Your task to perform on an android device: read, delete, or share a saved page in the chrome app Image 0: 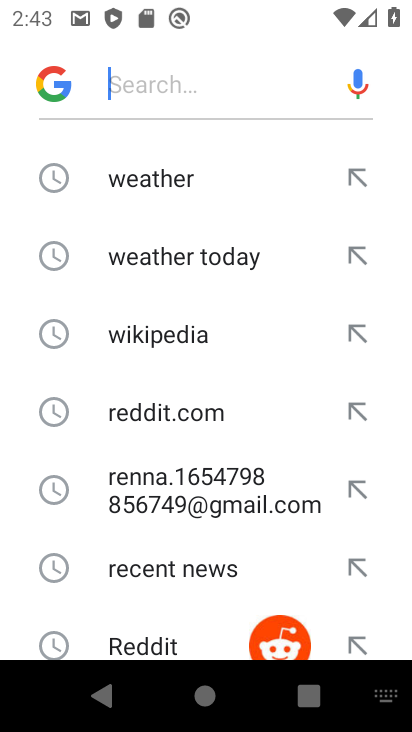
Step 0: press back button
Your task to perform on an android device: read, delete, or share a saved page in the chrome app Image 1: 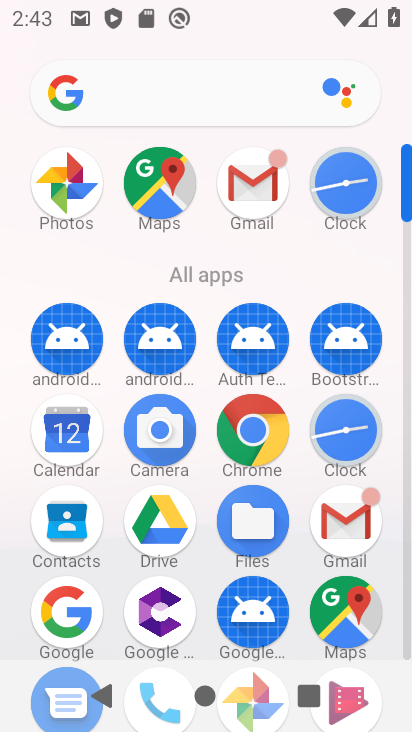
Step 1: click (266, 442)
Your task to perform on an android device: read, delete, or share a saved page in the chrome app Image 2: 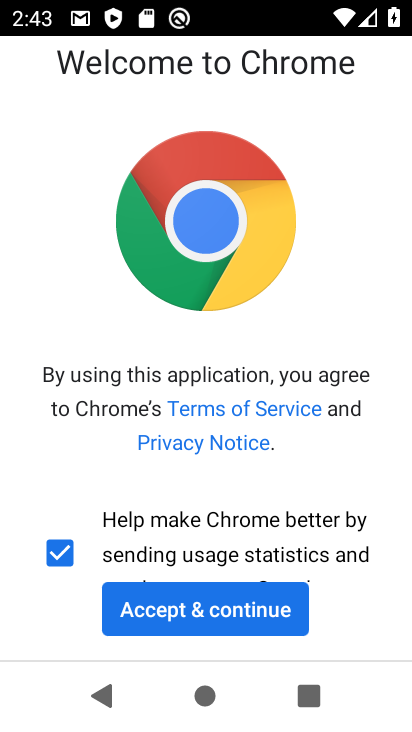
Step 2: click (207, 620)
Your task to perform on an android device: read, delete, or share a saved page in the chrome app Image 3: 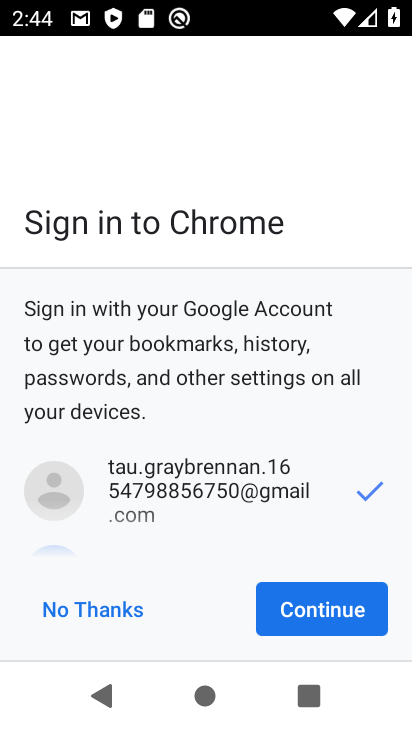
Step 3: click (318, 621)
Your task to perform on an android device: read, delete, or share a saved page in the chrome app Image 4: 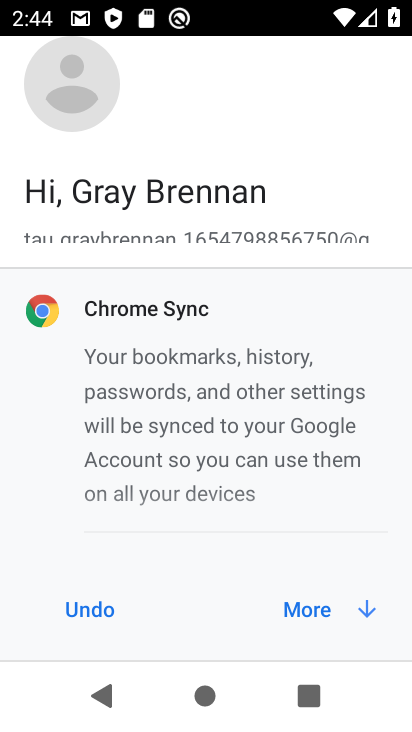
Step 4: click (326, 602)
Your task to perform on an android device: read, delete, or share a saved page in the chrome app Image 5: 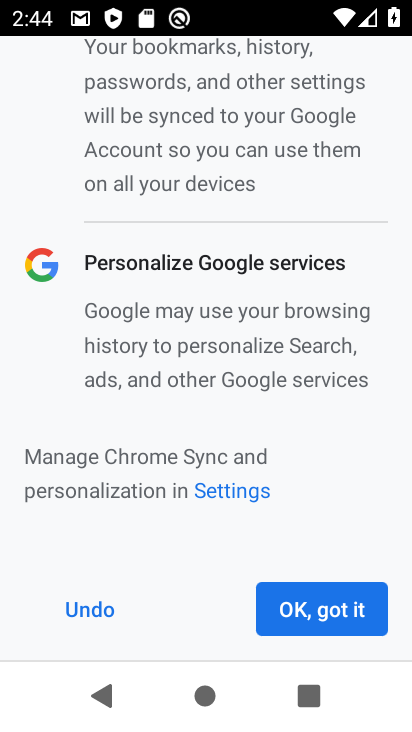
Step 5: click (326, 602)
Your task to perform on an android device: read, delete, or share a saved page in the chrome app Image 6: 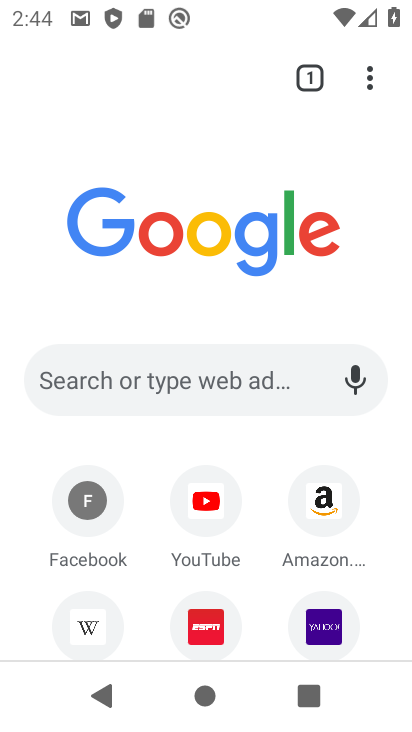
Step 6: click (372, 82)
Your task to perform on an android device: read, delete, or share a saved page in the chrome app Image 7: 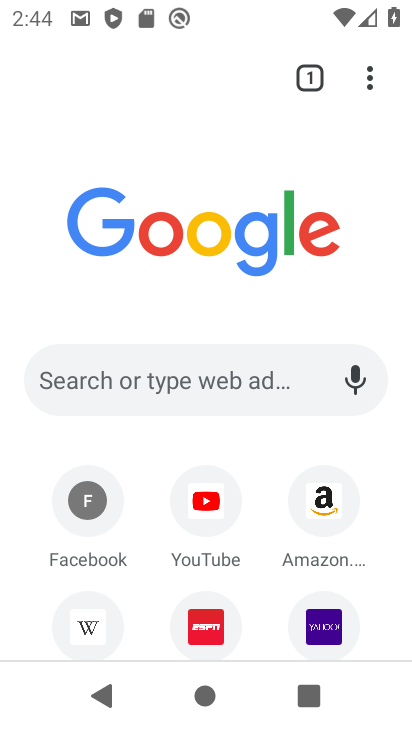
Step 7: click (363, 86)
Your task to perform on an android device: read, delete, or share a saved page in the chrome app Image 8: 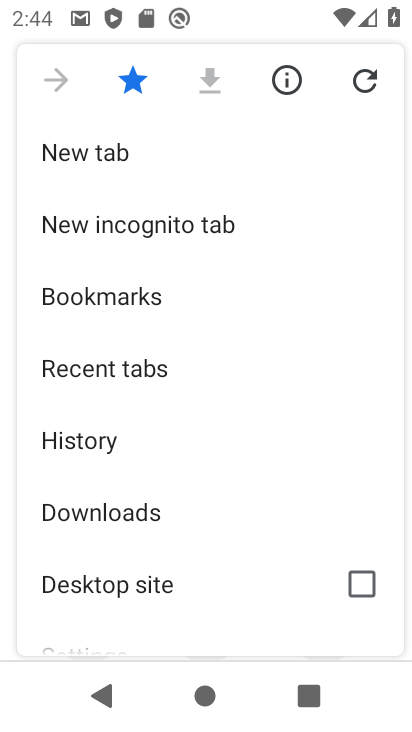
Step 8: click (88, 512)
Your task to perform on an android device: read, delete, or share a saved page in the chrome app Image 9: 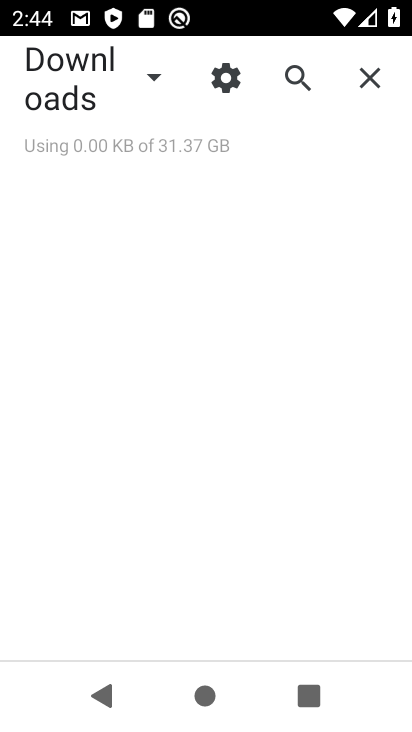
Step 9: task complete